Your task to perform on an android device: set the timer Image 0: 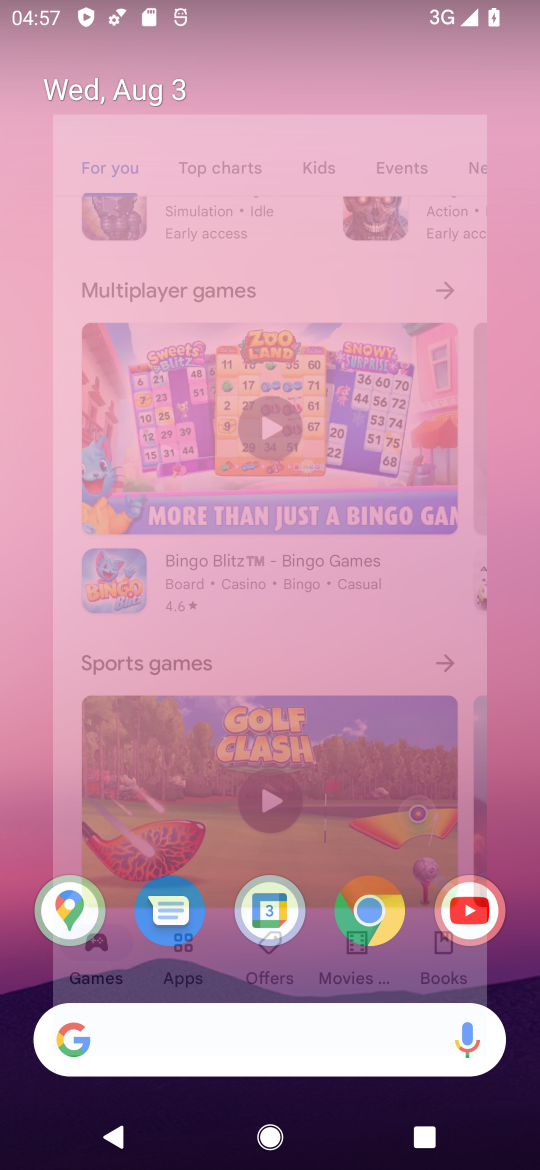
Step 0: press home button
Your task to perform on an android device: set the timer Image 1: 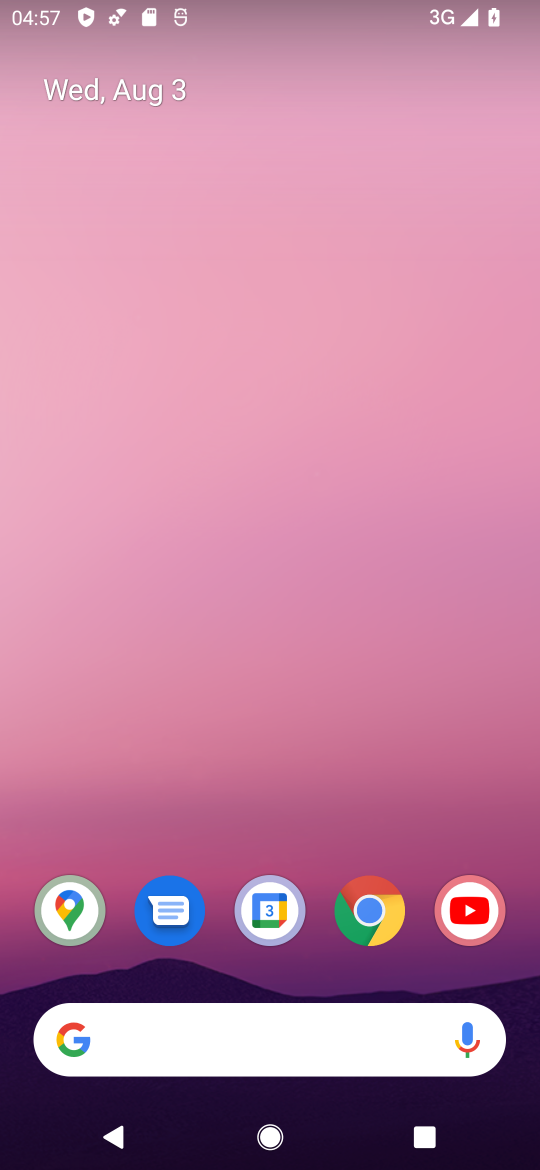
Step 1: drag from (301, 838) to (293, 47)
Your task to perform on an android device: set the timer Image 2: 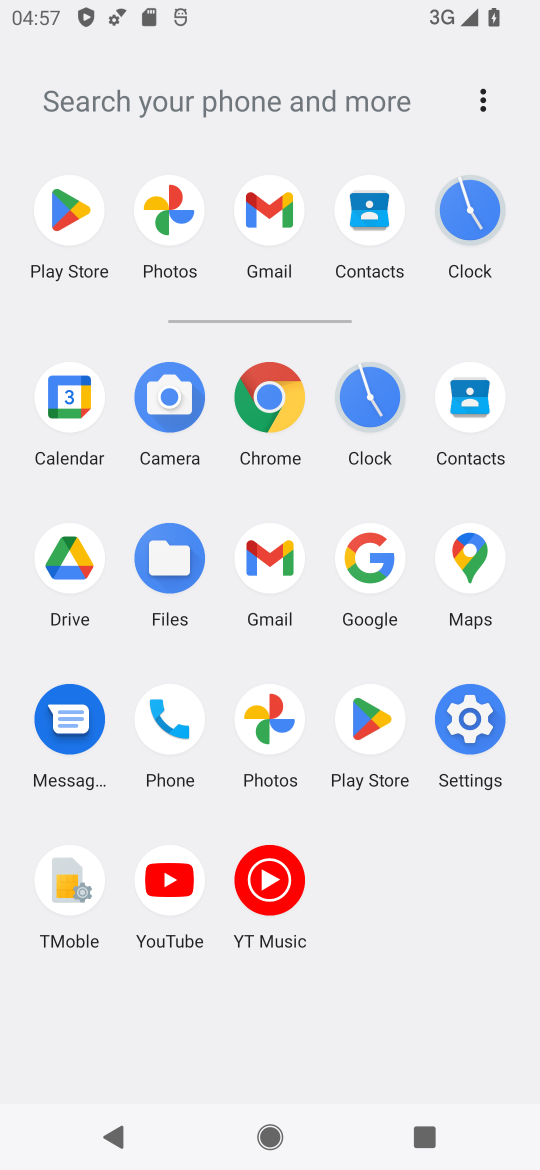
Step 2: click (365, 381)
Your task to perform on an android device: set the timer Image 3: 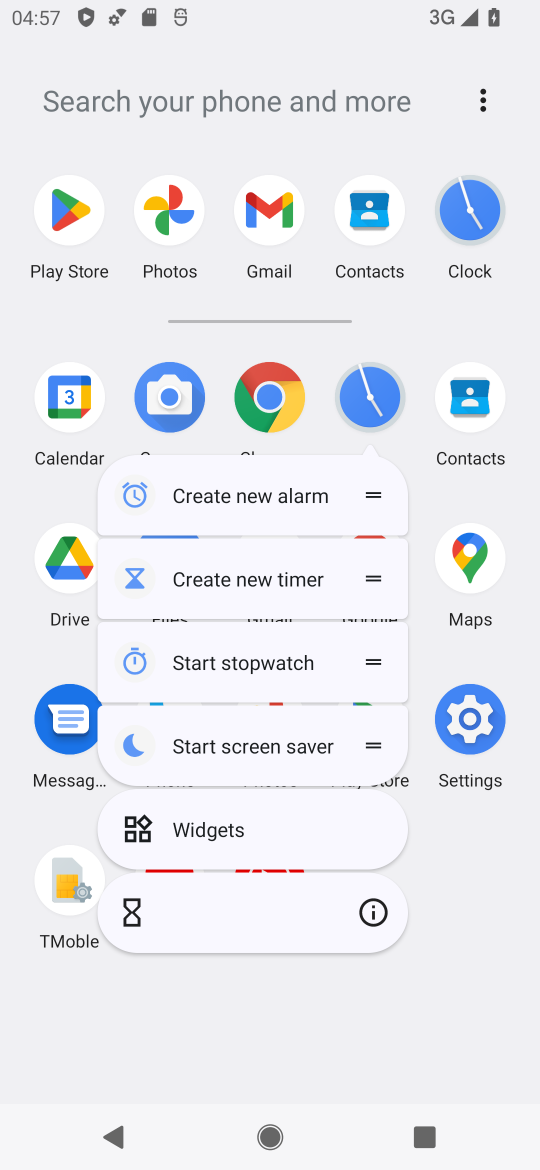
Step 3: click (369, 381)
Your task to perform on an android device: set the timer Image 4: 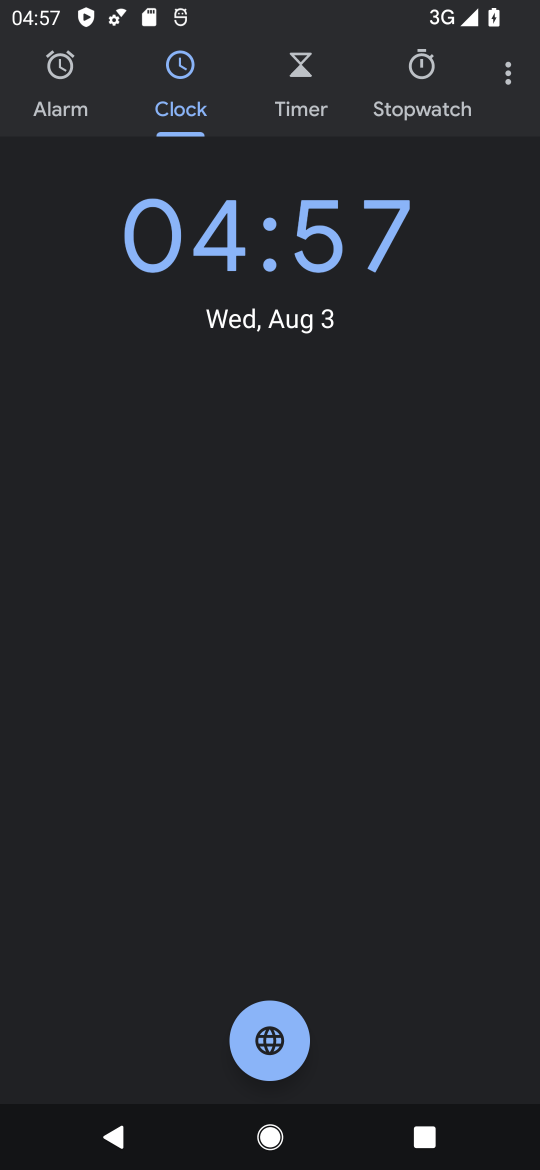
Step 4: click (296, 57)
Your task to perform on an android device: set the timer Image 5: 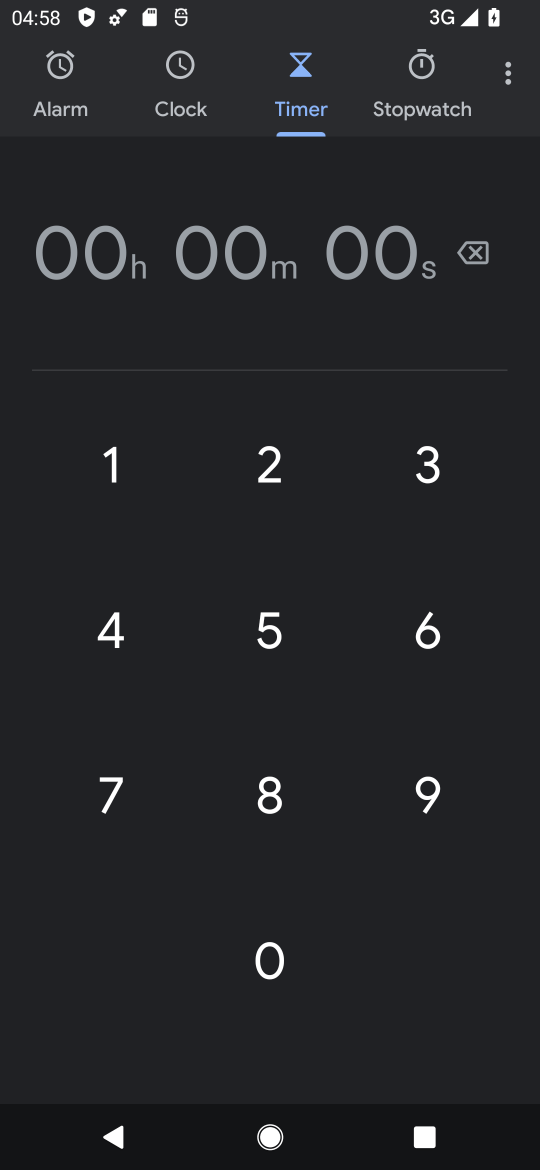
Step 5: click (428, 447)
Your task to perform on an android device: set the timer Image 6: 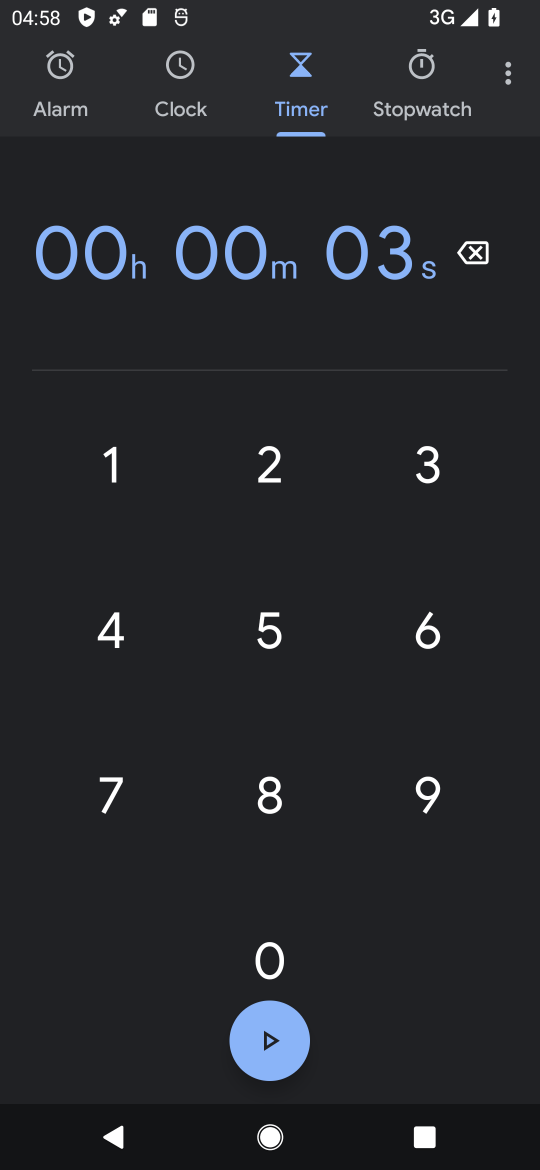
Step 6: click (264, 961)
Your task to perform on an android device: set the timer Image 7: 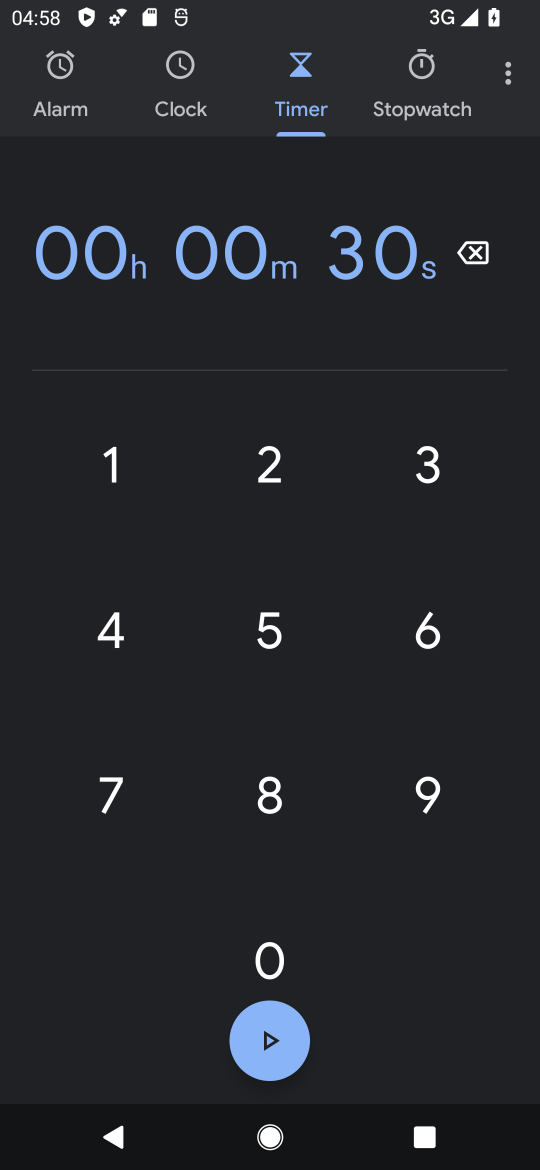
Step 7: click (264, 961)
Your task to perform on an android device: set the timer Image 8: 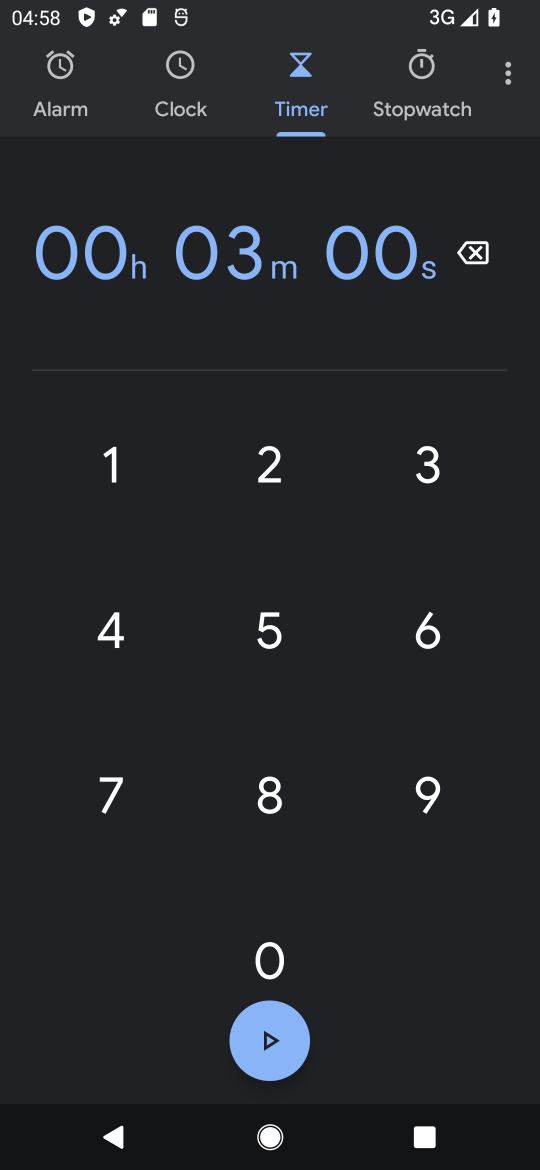
Step 8: click (272, 947)
Your task to perform on an android device: set the timer Image 9: 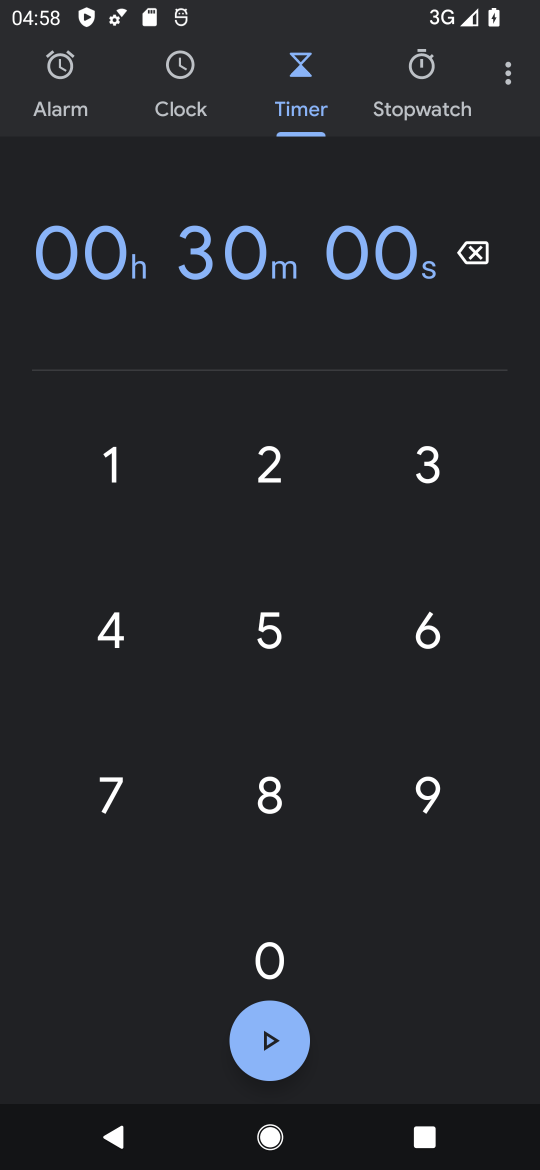
Step 9: click (266, 1038)
Your task to perform on an android device: set the timer Image 10: 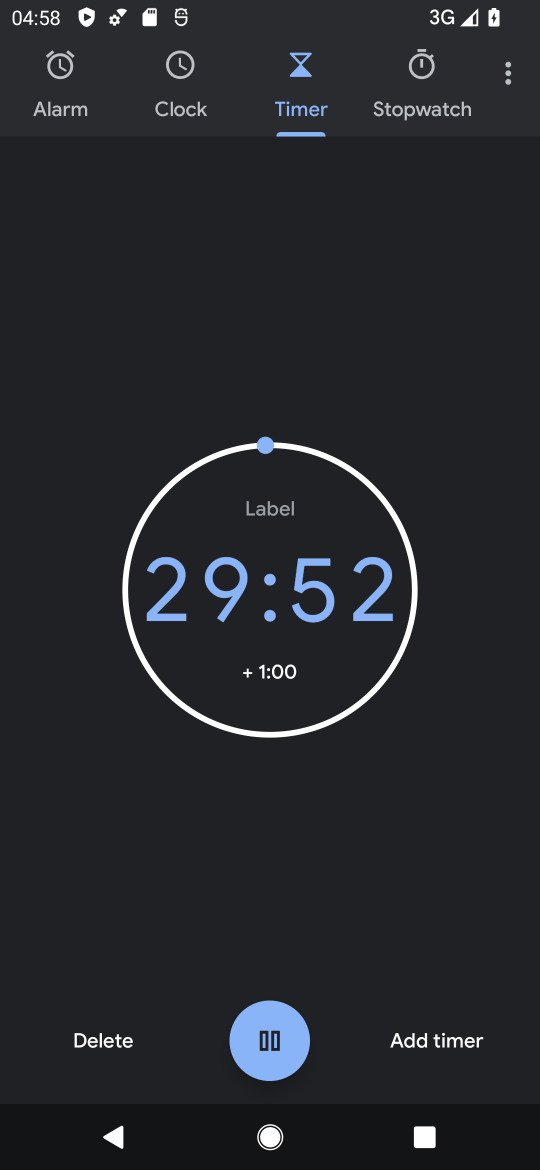
Step 10: task complete